Your task to perform on an android device: Open calendar and show me the fourth week of next month Image 0: 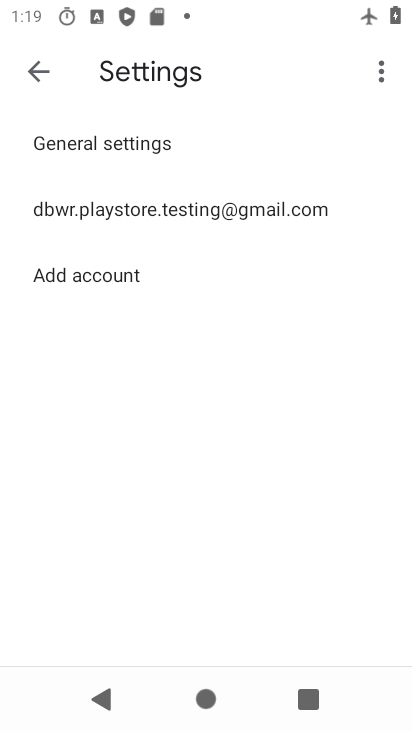
Step 0: press home button
Your task to perform on an android device: Open calendar and show me the fourth week of next month Image 1: 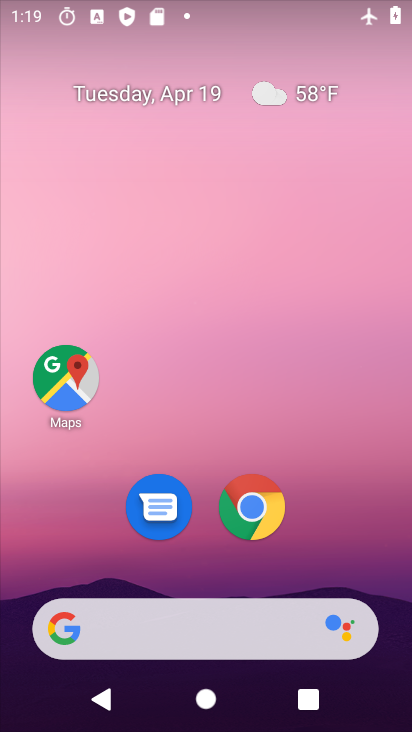
Step 1: drag from (221, 538) to (226, 74)
Your task to perform on an android device: Open calendar and show me the fourth week of next month Image 2: 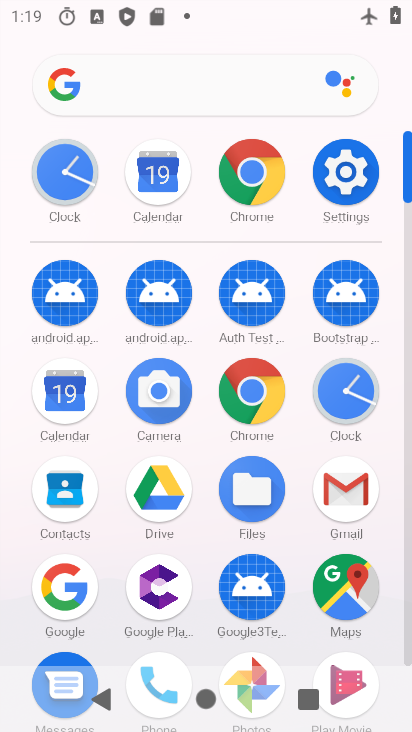
Step 2: click (66, 393)
Your task to perform on an android device: Open calendar and show me the fourth week of next month Image 3: 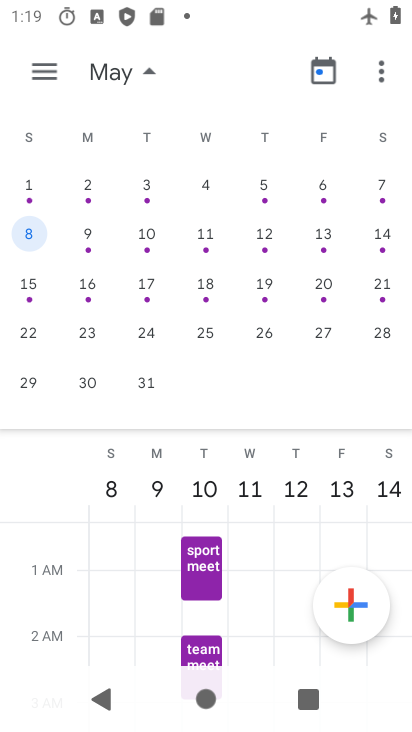
Step 3: click (39, 335)
Your task to perform on an android device: Open calendar and show me the fourth week of next month Image 4: 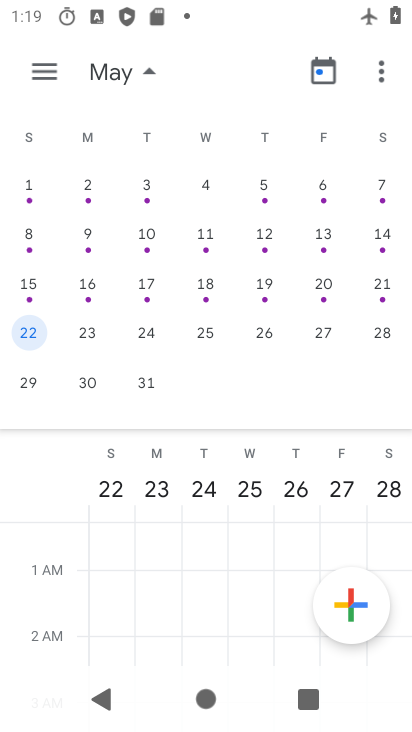
Step 4: task complete